Your task to perform on an android device: Go to network settings Image 0: 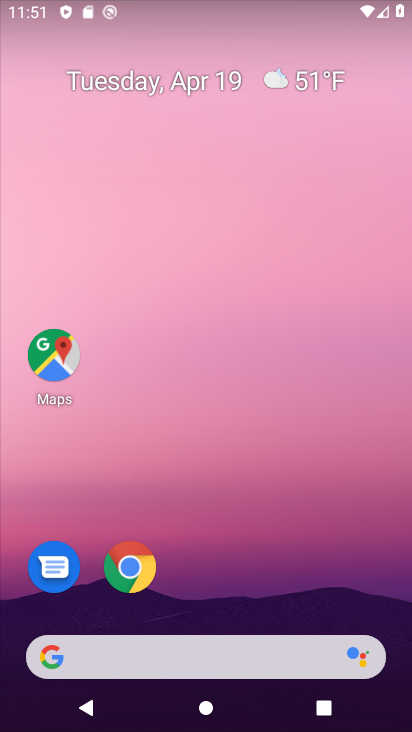
Step 0: drag from (219, 565) to (325, 13)
Your task to perform on an android device: Go to network settings Image 1: 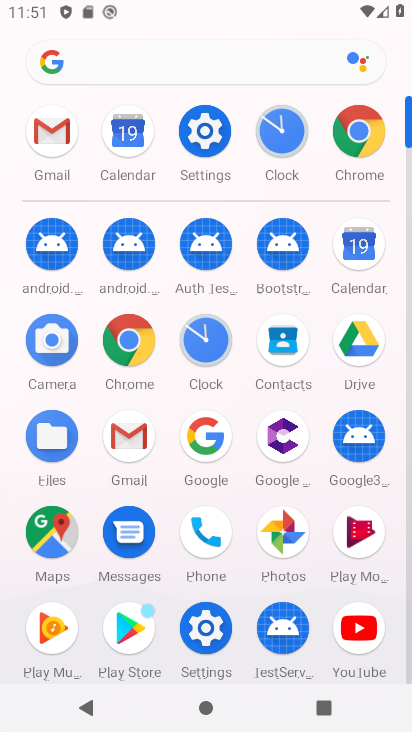
Step 1: click (216, 152)
Your task to perform on an android device: Go to network settings Image 2: 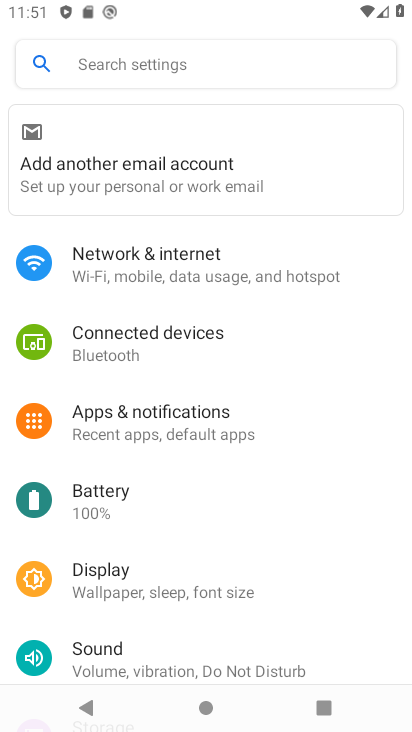
Step 2: click (161, 262)
Your task to perform on an android device: Go to network settings Image 3: 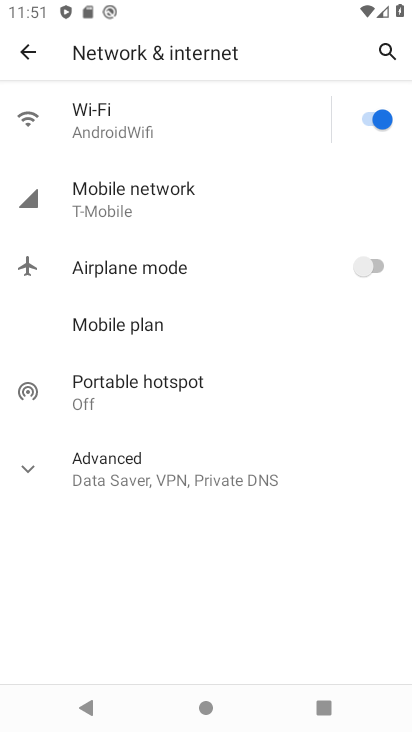
Step 3: task complete